Your task to perform on an android device: When is my next meeting? Image 0: 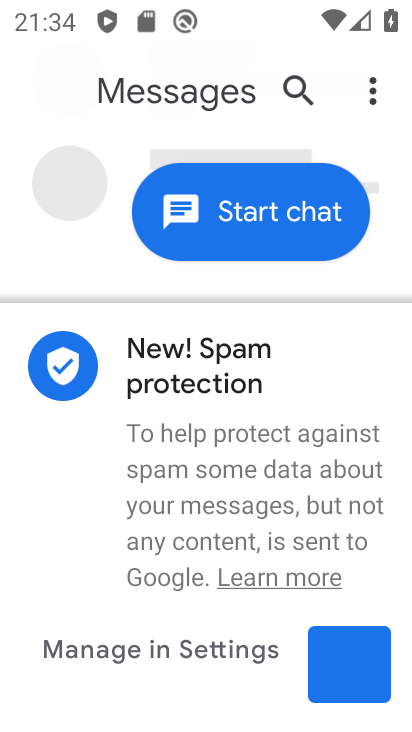
Step 0: press home button
Your task to perform on an android device: When is my next meeting? Image 1: 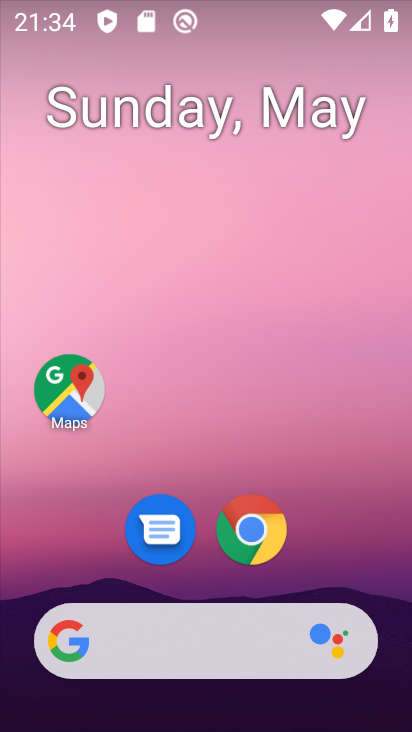
Step 1: drag from (344, 560) to (359, 1)
Your task to perform on an android device: When is my next meeting? Image 2: 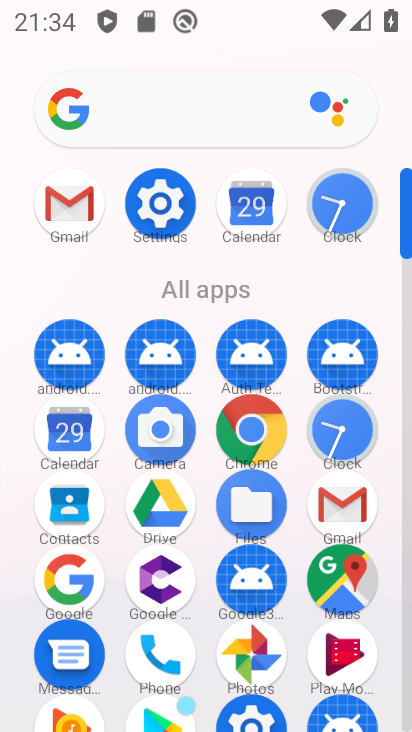
Step 2: click (65, 428)
Your task to perform on an android device: When is my next meeting? Image 3: 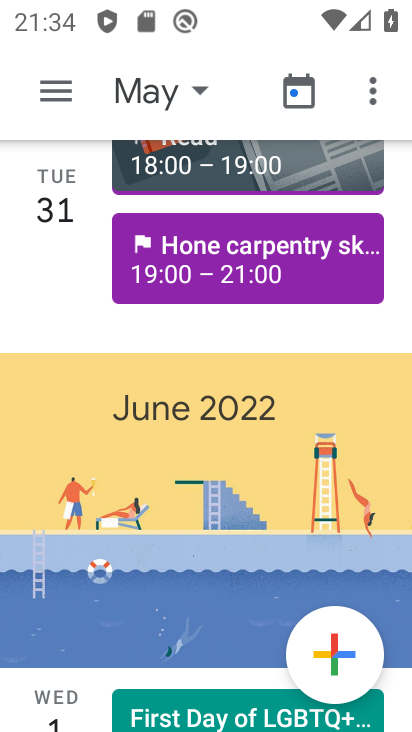
Step 3: click (197, 97)
Your task to perform on an android device: When is my next meeting? Image 4: 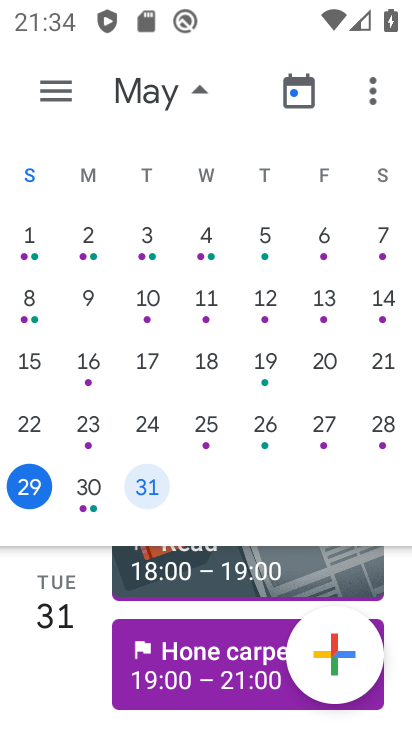
Step 4: click (27, 501)
Your task to perform on an android device: When is my next meeting? Image 5: 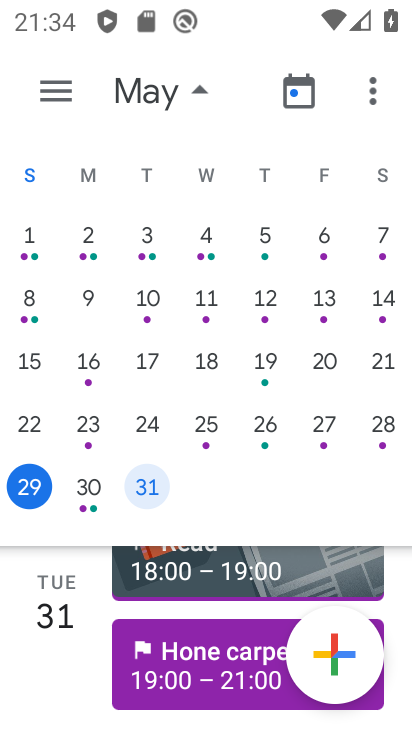
Step 5: click (37, 490)
Your task to perform on an android device: When is my next meeting? Image 6: 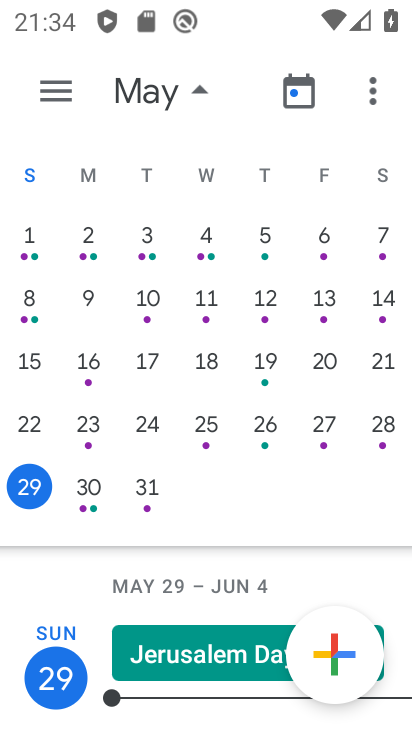
Step 6: task complete